Your task to perform on an android device: Open Google Chrome Image 0: 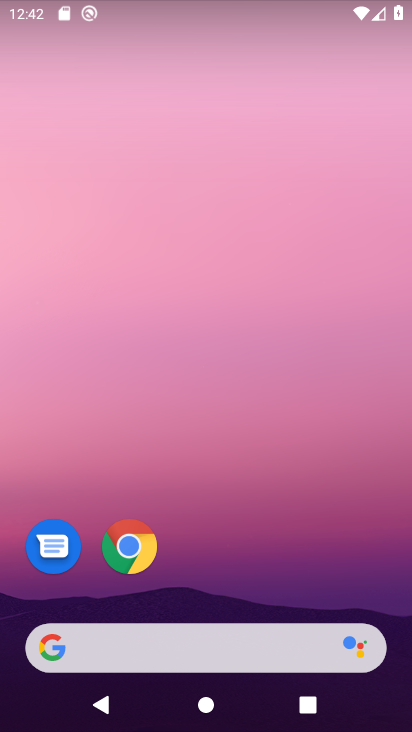
Step 0: click (142, 549)
Your task to perform on an android device: Open Google Chrome Image 1: 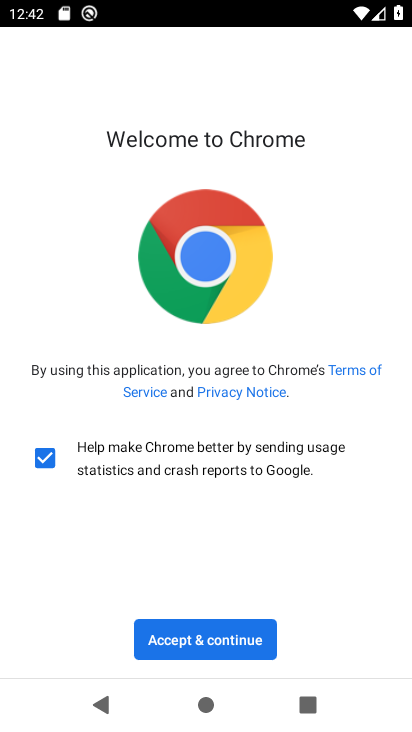
Step 1: click (213, 634)
Your task to perform on an android device: Open Google Chrome Image 2: 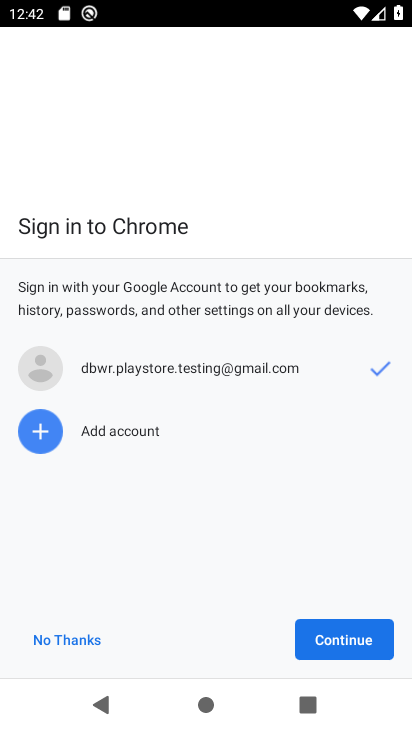
Step 2: click (354, 633)
Your task to perform on an android device: Open Google Chrome Image 3: 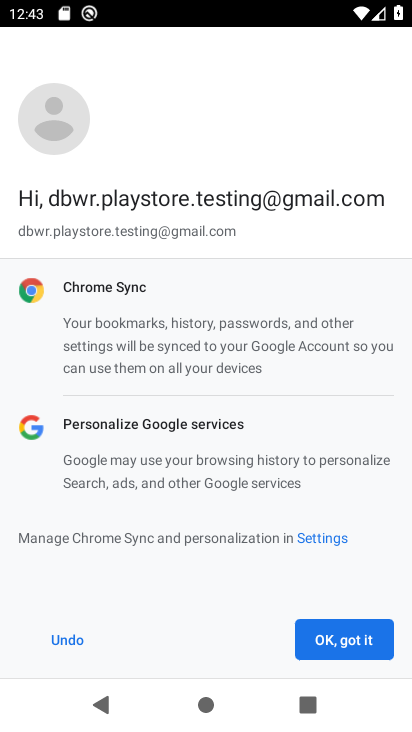
Step 3: click (333, 647)
Your task to perform on an android device: Open Google Chrome Image 4: 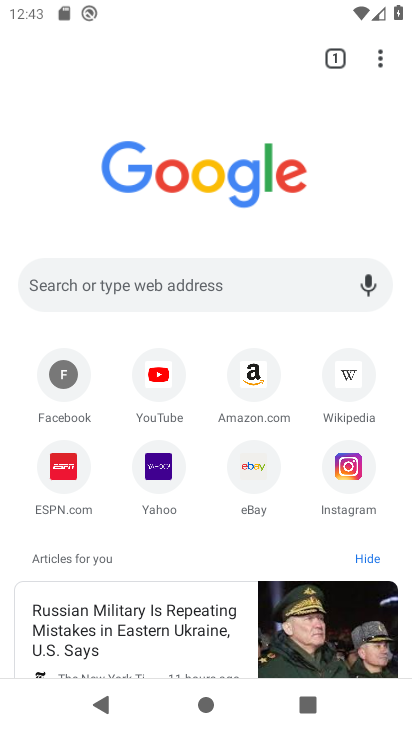
Step 4: task complete